Your task to perform on an android device: When is my next meeting? Image 0: 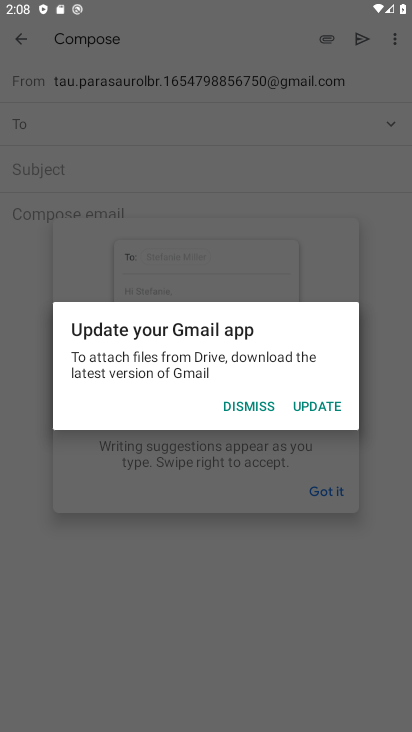
Step 0: press home button
Your task to perform on an android device: When is my next meeting? Image 1: 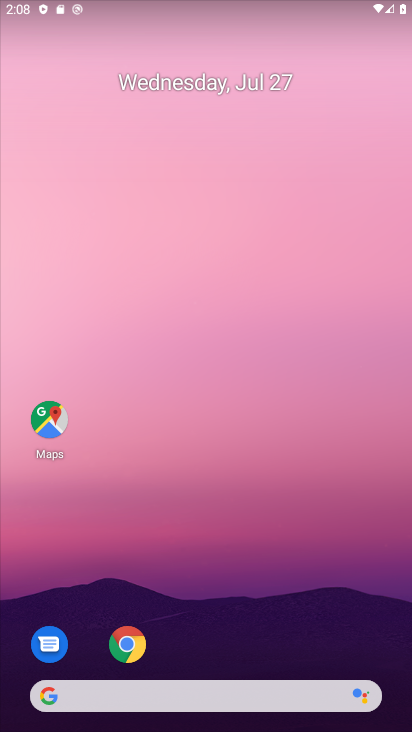
Step 1: drag from (219, 648) to (186, 239)
Your task to perform on an android device: When is my next meeting? Image 2: 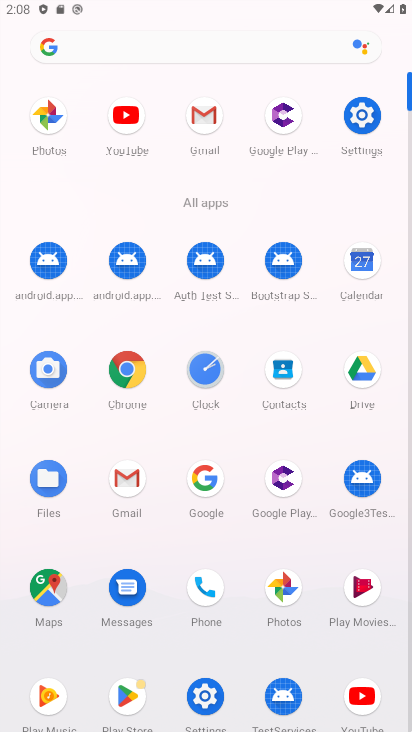
Step 2: click (360, 263)
Your task to perform on an android device: When is my next meeting? Image 3: 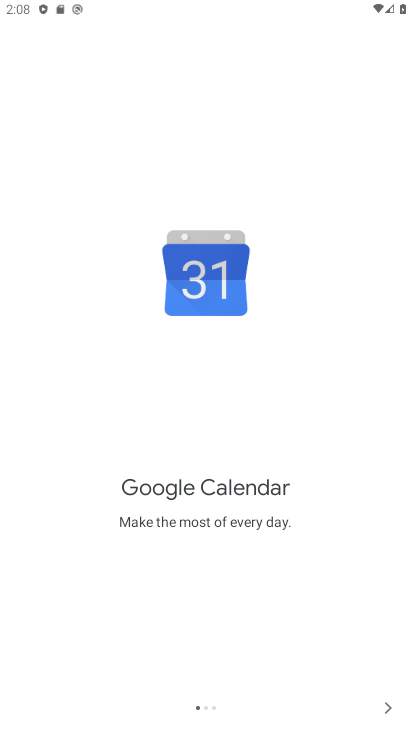
Step 3: click (388, 696)
Your task to perform on an android device: When is my next meeting? Image 4: 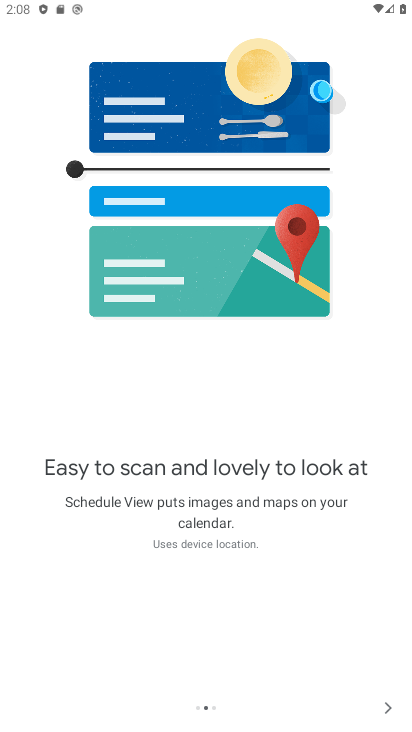
Step 4: click (391, 703)
Your task to perform on an android device: When is my next meeting? Image 5: 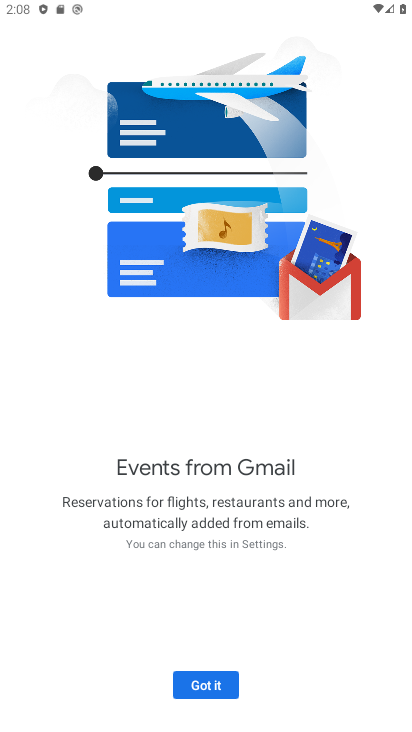
Step 5: click (195, 677)
Your task to perform on an android device: When is my next meeting? Image 6: 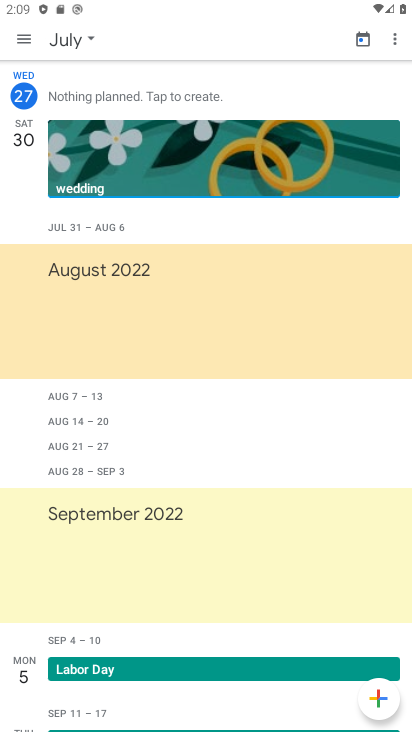
Step 6: task complete